Your task to perform on an android device: What's on my calendar tomorrow? Image 0: 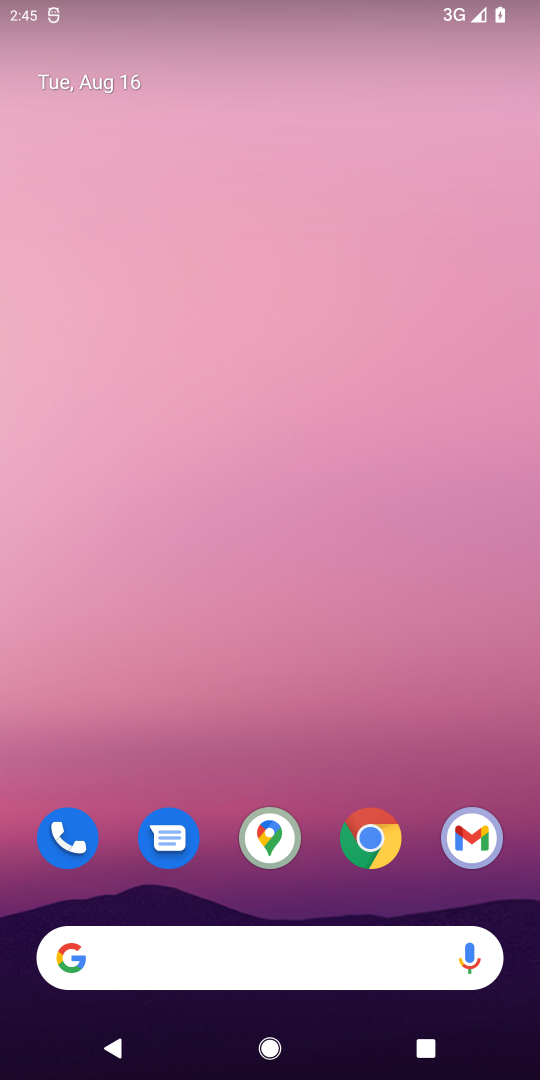
Step 0: press home button
Your task to perform on an android device: What's on my calendar tomorrow? Image 1: 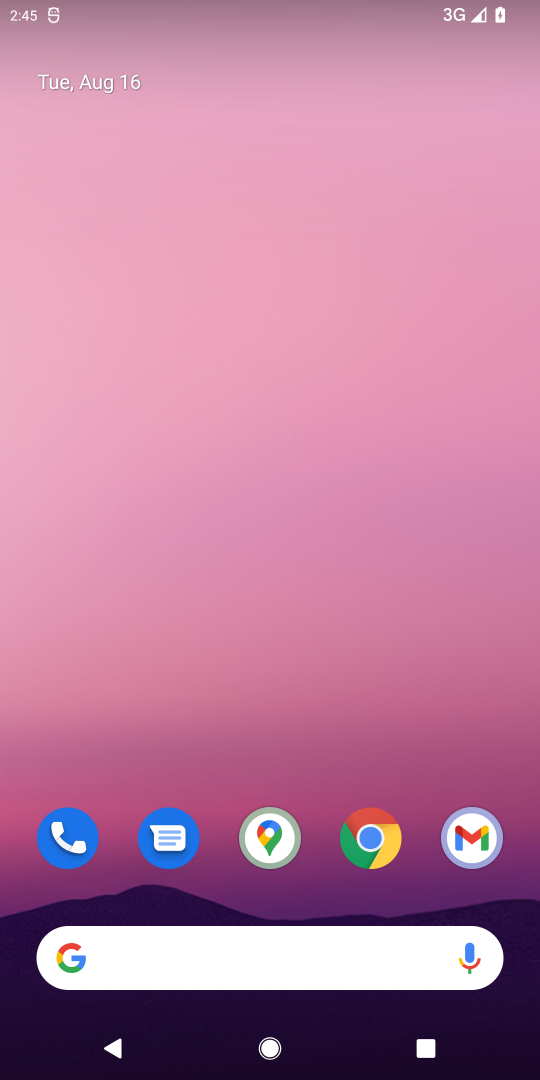
Step 1: drag from (316, 657) to (230, 106)
Your task to perform on an android device: What's on my calendar tomorrow? Image 2: 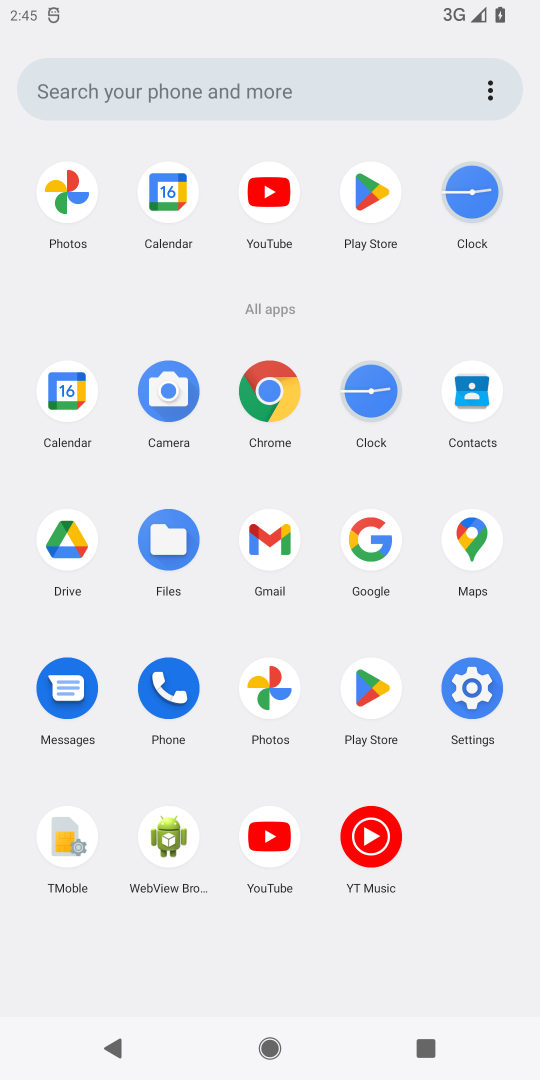
Step 2: click (58, 387)
Your task to perform on an android device: What's on my calendar tomorrow? Image 3: 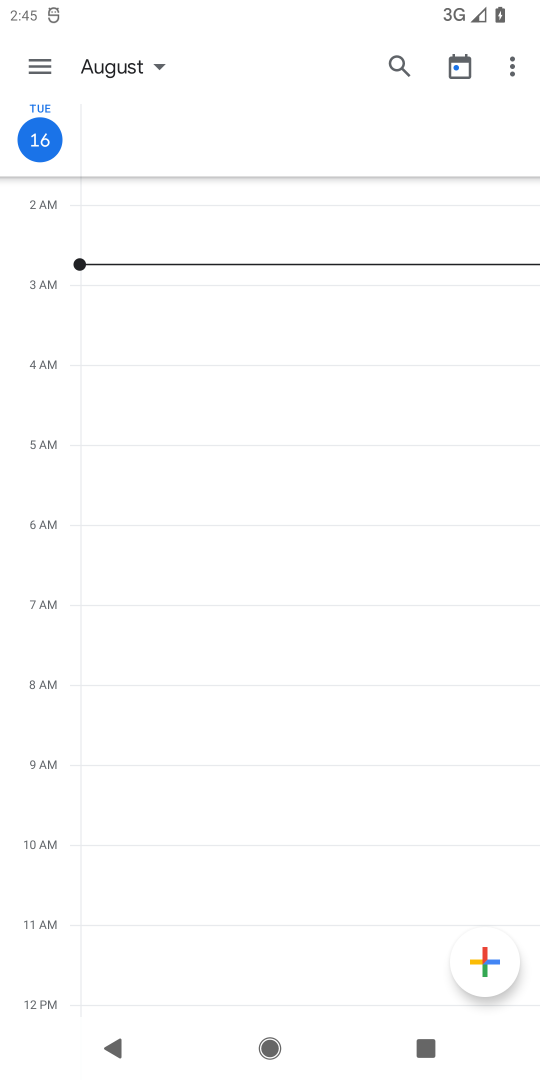
Step 3: task complete